Your task to perform on an android device: Open the calendar app, open the side menu, and click the "Day" option Image 0: 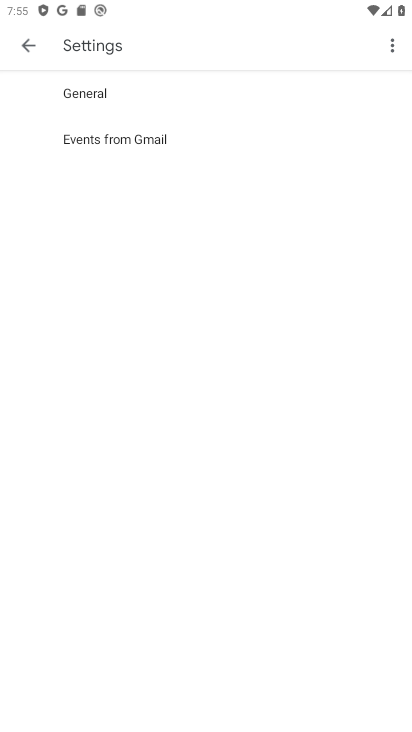
Step 0: press home button
Your task to perform on an android device: Open the calendar app, open the side menu, and click the "Day" option Image 1: 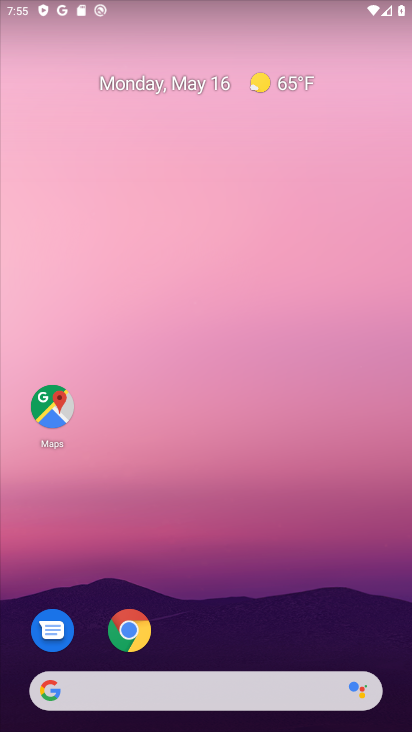
Step 1: drag from (221, 620) to (281, 83)
Your task to perform on an android device: Open the calendar app, open the side menu, and click the "Day" option Image 2: 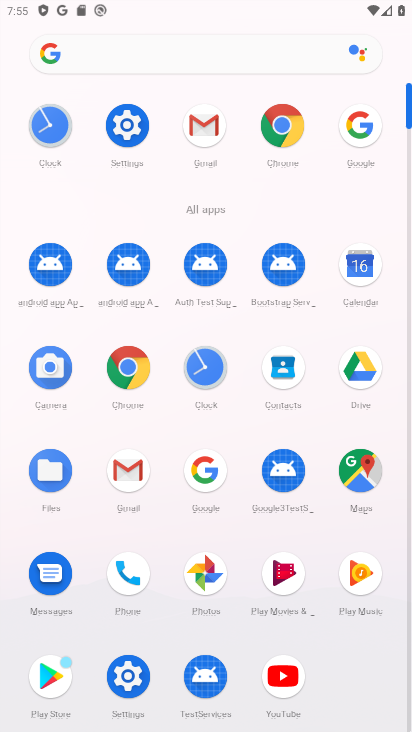
Step 2: click (359, 284)
Your task to perform on an android device: Open the calendar app, open the side menu, and click the "Day" option Image 3: 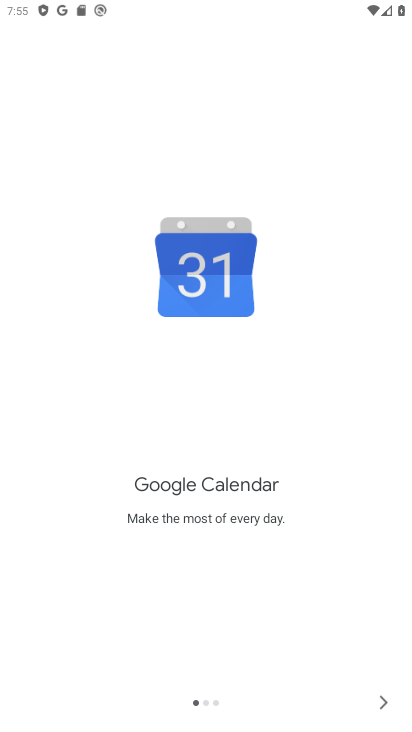
Step 3: click (371, 690)
Your task to perform on an android device: Open the calendar app, open the side menu, and click the "Day" option Image 4: 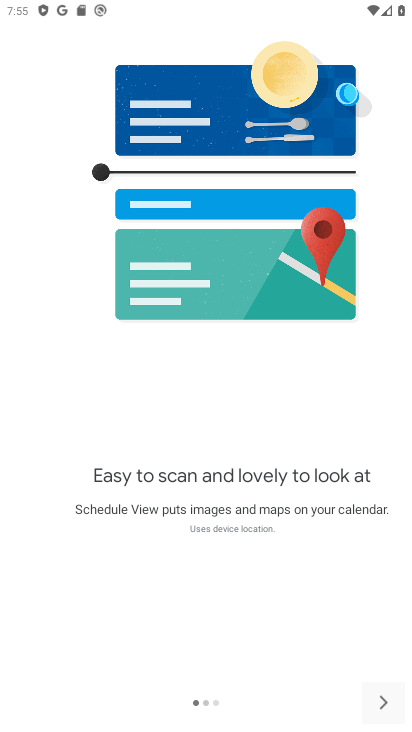
Step 4: click (371, 690)
Your task to perform on an android device: Open the calendar app, open the side menu, and click the "Day" option Image 5: 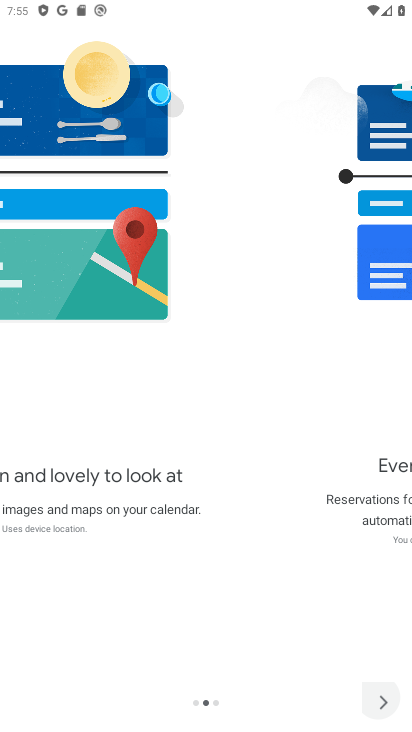
Step 5: click (371, 690)
Your task to perform on an android device: Open the calendar app, open the side menu, and click the "Day" option Image 6: 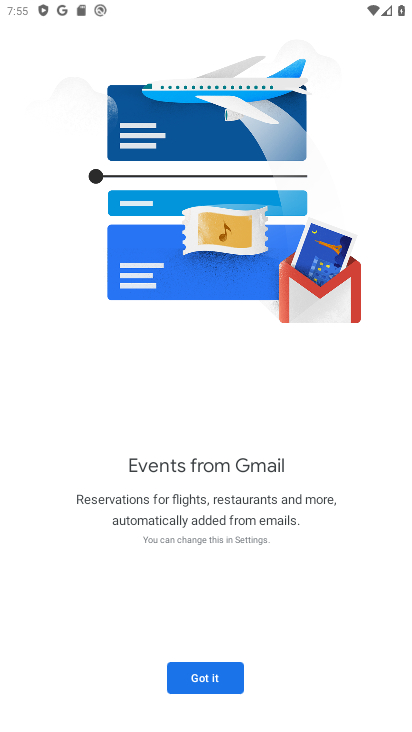
Step 6: click (215, 681)
Your task to perform on an android device: Open the calendar app, open the side menu, and click the "Day" option Image 7: 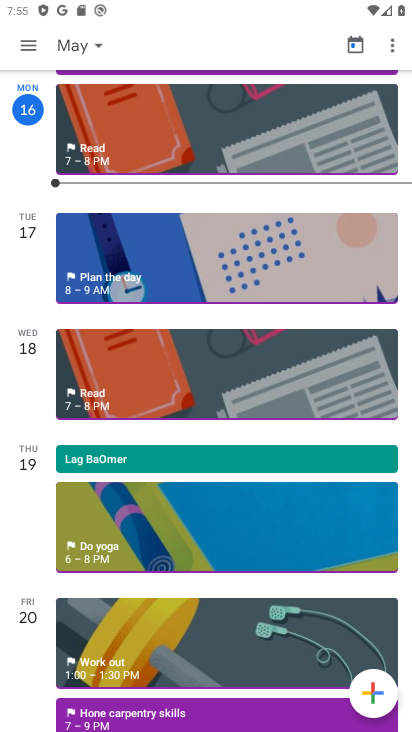
Step 7: click (29, 38)
Your task to perform on an android device: Open the calendar app, open the side menu, and click the "Day" option Image 8: 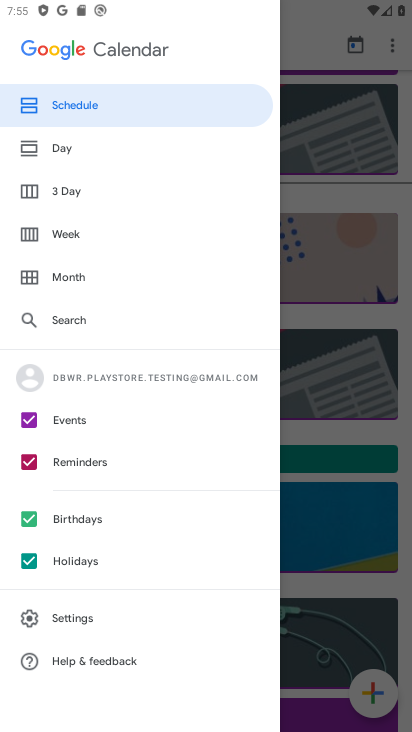
Step 8: click (75, 153)
Your task to perform on an android device: Open the calendar app, open the side menu, and click the "Day" option Image 9: 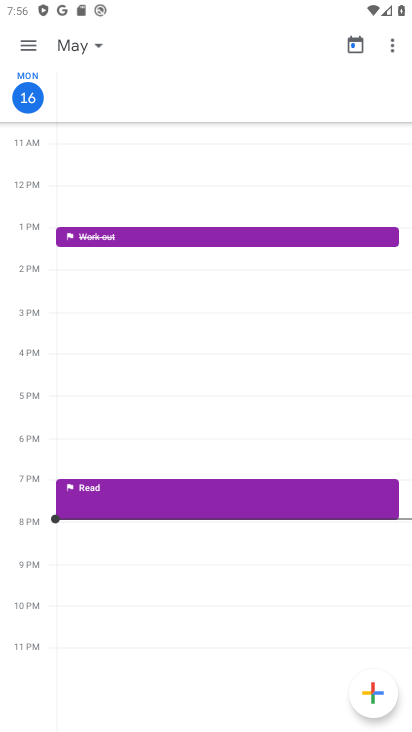
Step 9: task complete